Your task to perform on an android device: Go to battery settings Image 0: 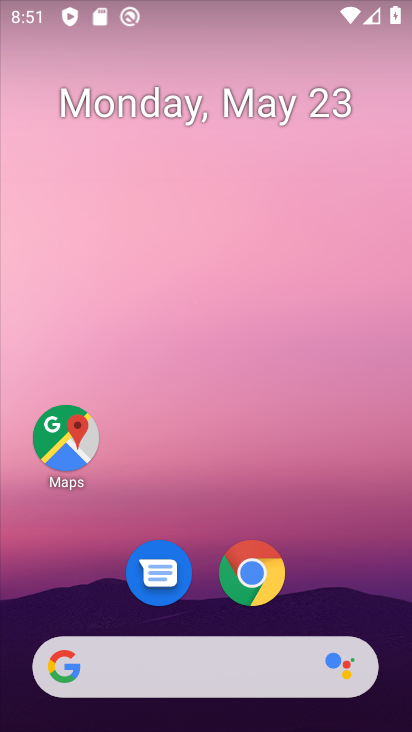
Step 0: drag from (361, 550) to (365, 229)
Your task to perform on an android device: Go to battery settings Image 1: 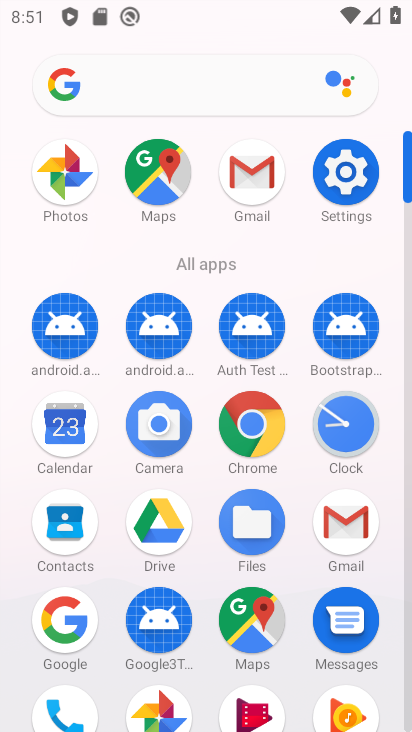
Step 1: click (349, 185)
Your task to perform on an android device: Go to battery settings Image 2: 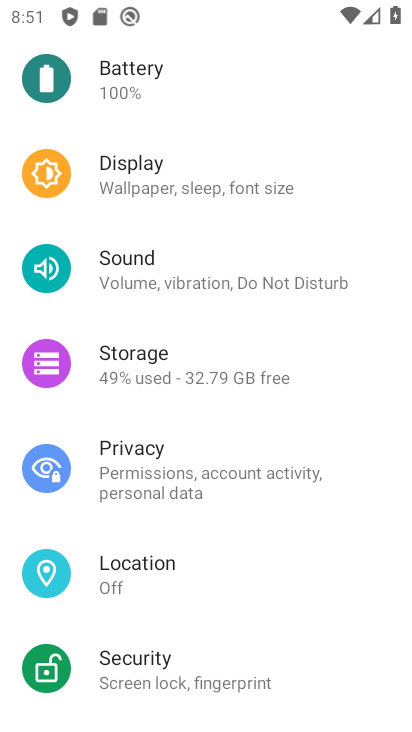
Step 2: drag from (354, 547) to (352, 459)
Your task to perform on an android device: Go to battery settings Image 3: 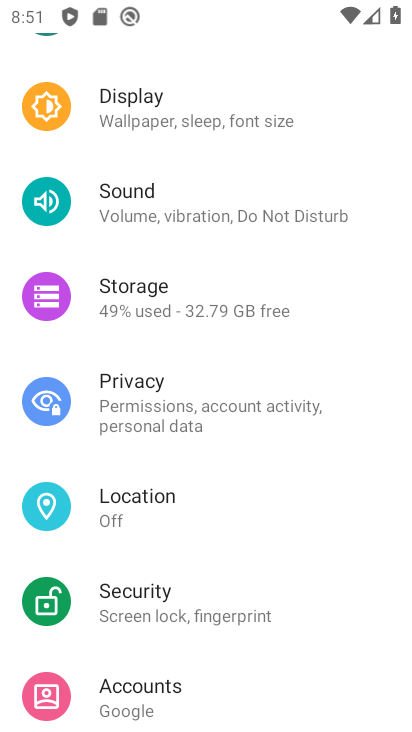
Step 3: drag from (350, 616) to (345, 478)
Your task to perform on an android device: Go to battery settings Image 4: 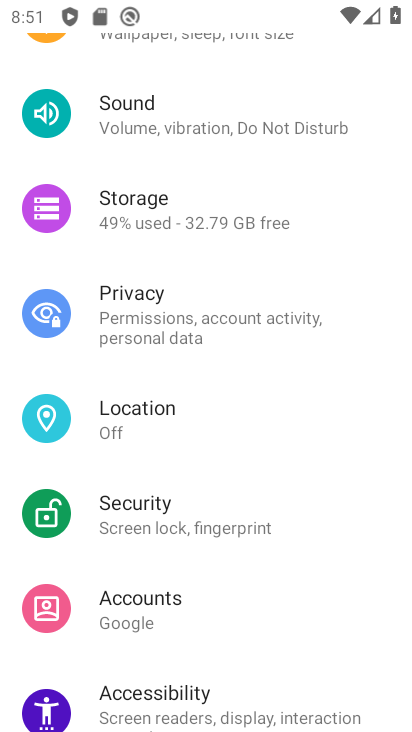
Step 4: drag from (336, 664) to (345, 599)
Your task to perform on an android device: Go to battery settings Image 5: 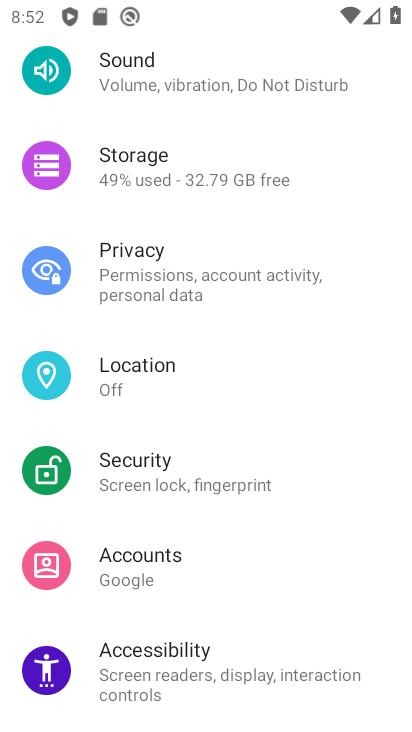
Step 5: drag from (381, 667) to (383, 489)
Your task to perform on an android device: Go to battery settings Image 6: 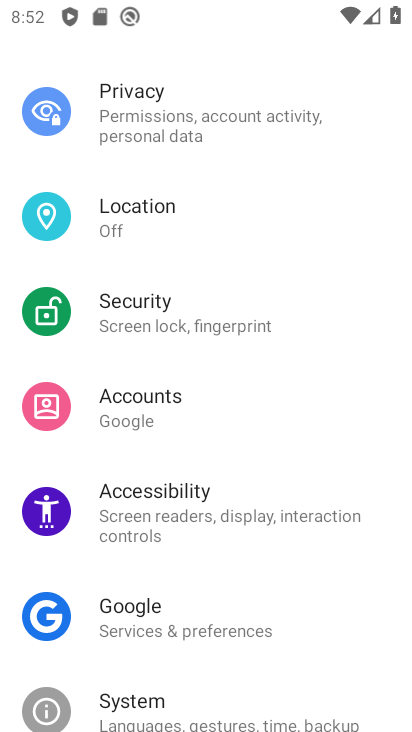
Step 6: drag from (348, 630) to (350, 480)
Your task to perform on an android device: Go to battery settings Image 7: 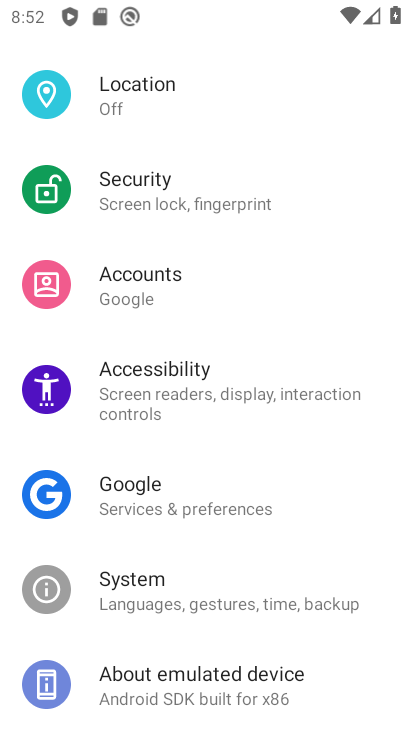
Step 7: drag from (349, 654) to (325, 532)
Your task to perform on an android device: Go to battery settings Image 8: 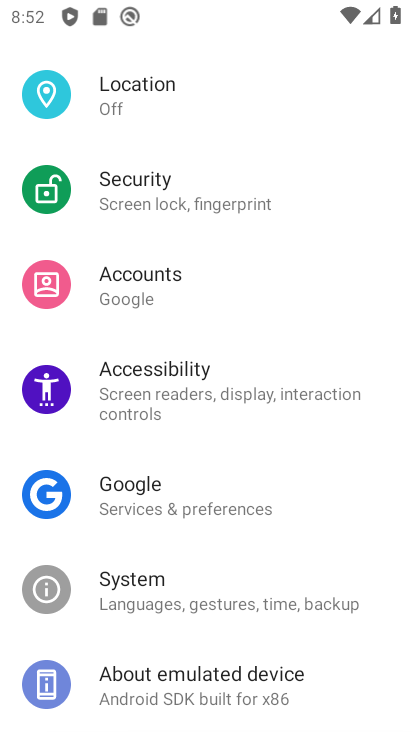
Step 8: drag from (347, 450) to (332, 575)
Your task to perform on an android device: Go to battery settings Image 9: 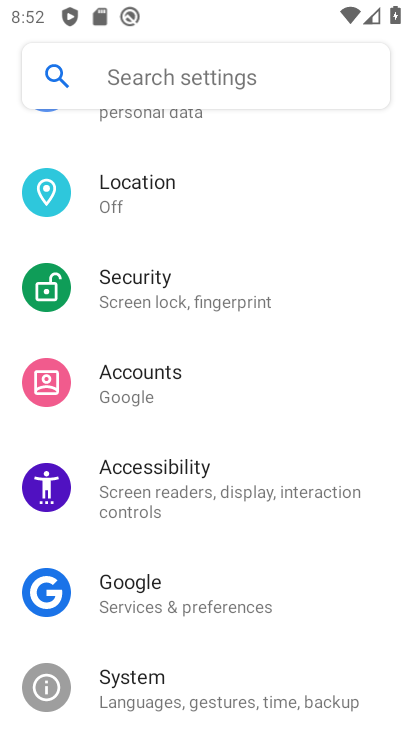
Step 9: drag from (333, 440) to (328, 556)
Your task to perform on an android device: Go to battery settings Image 10: 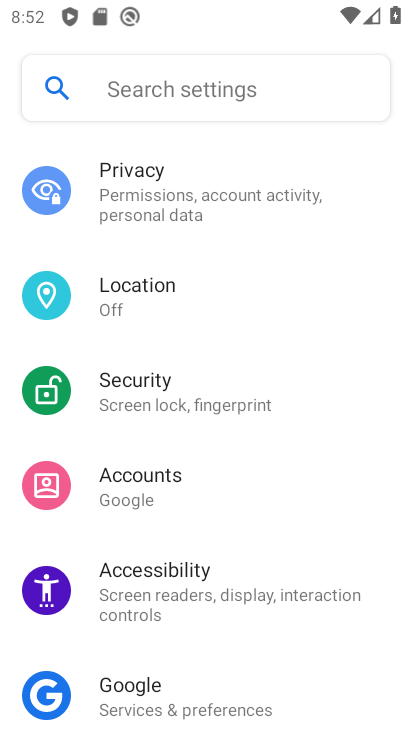
Step 10: drag from (361, 389) to (365, 507)
Your task to perform on an android device: Go to battery settings Image 11: 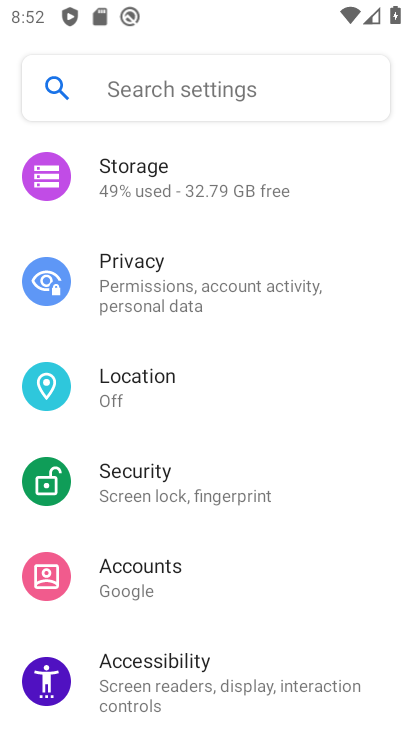
Step 11: drag from (345, 361) to (340, 483)
Your task to perform on an android device: Go to battery settings Image 12: 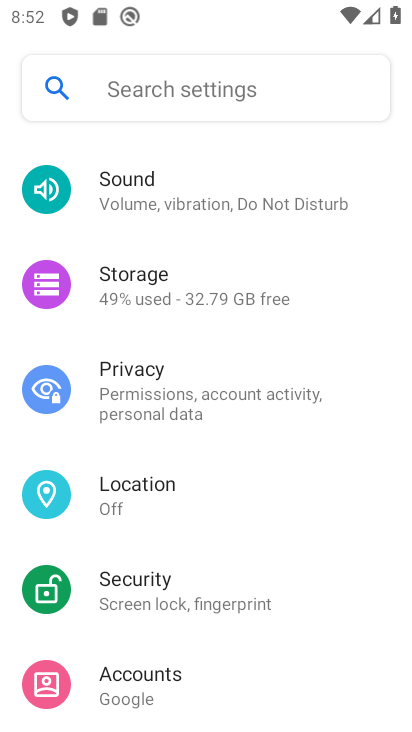
Step 12: drag from (349, 350) to (346, 488)
Your task to perform on an android device: Go to battery settings Image 13: 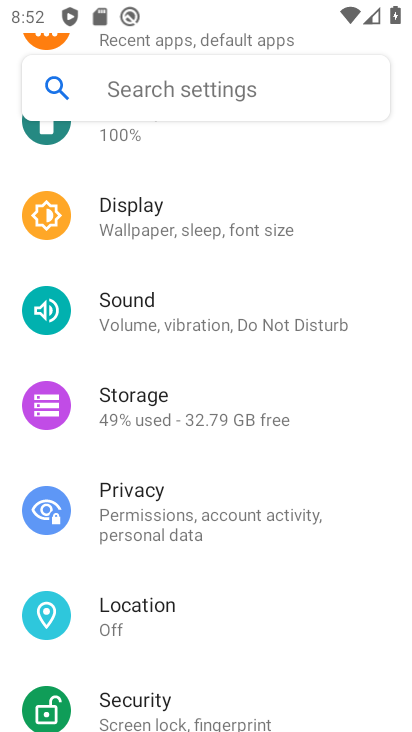
Step 13: drag from (356, 365) to (374, 463)
Your task to perform on an android device: Go to battery settings Image 14: 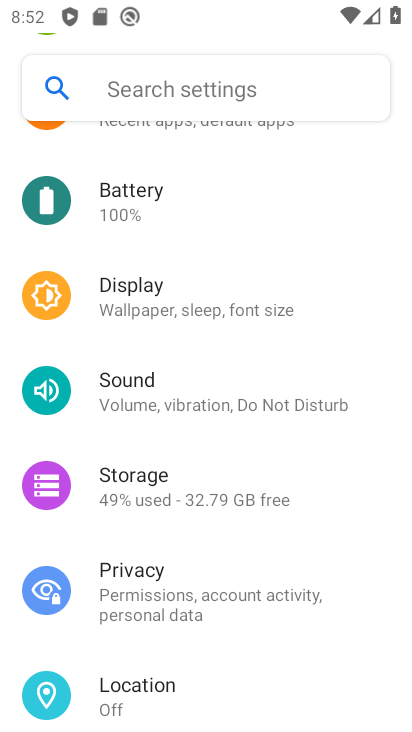
Step 14: drag from (376, 359) to (384, 447)
Your task to perform on an android device: Go to battery settings Image 15: 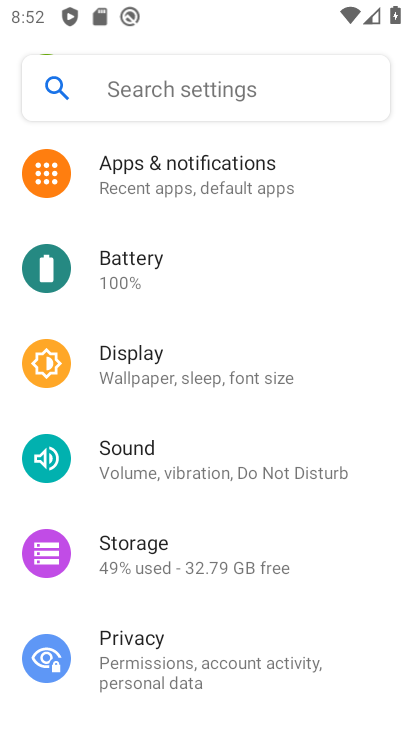
Step 15: drag from (356, 344) to (357, 475)
Your task to perform on an android device: Go to battery settings Image 16: 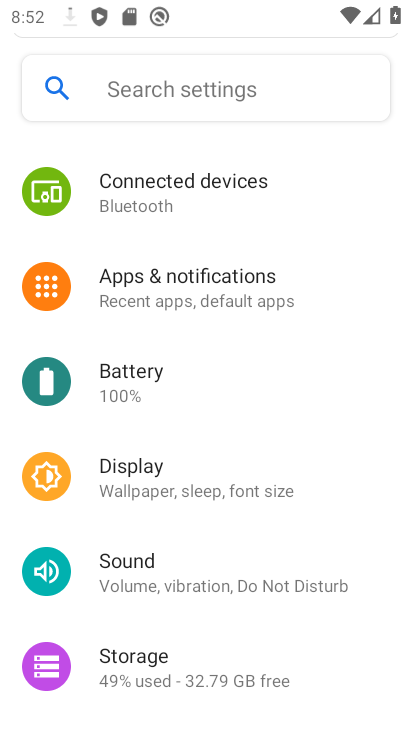
Step 16: drag from (351, 362) to (345, 459)
Your task to perform on an android device: Go to battery settings Image 17: 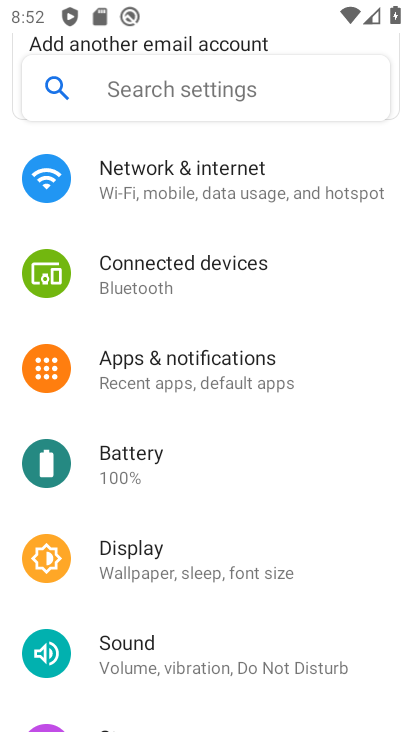
Step 17: click (151, 479)
Your task to perform on an android device: Go to battery settings Image 18: 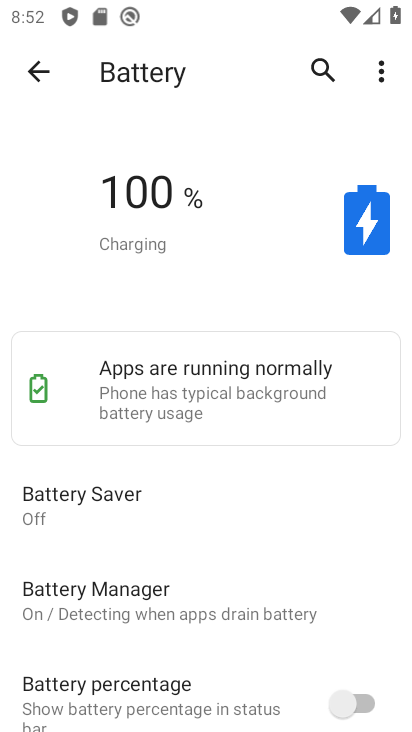
Step 18: task complete